Your task to perform on an android device: Is it going to rain this weekend? Image 0: 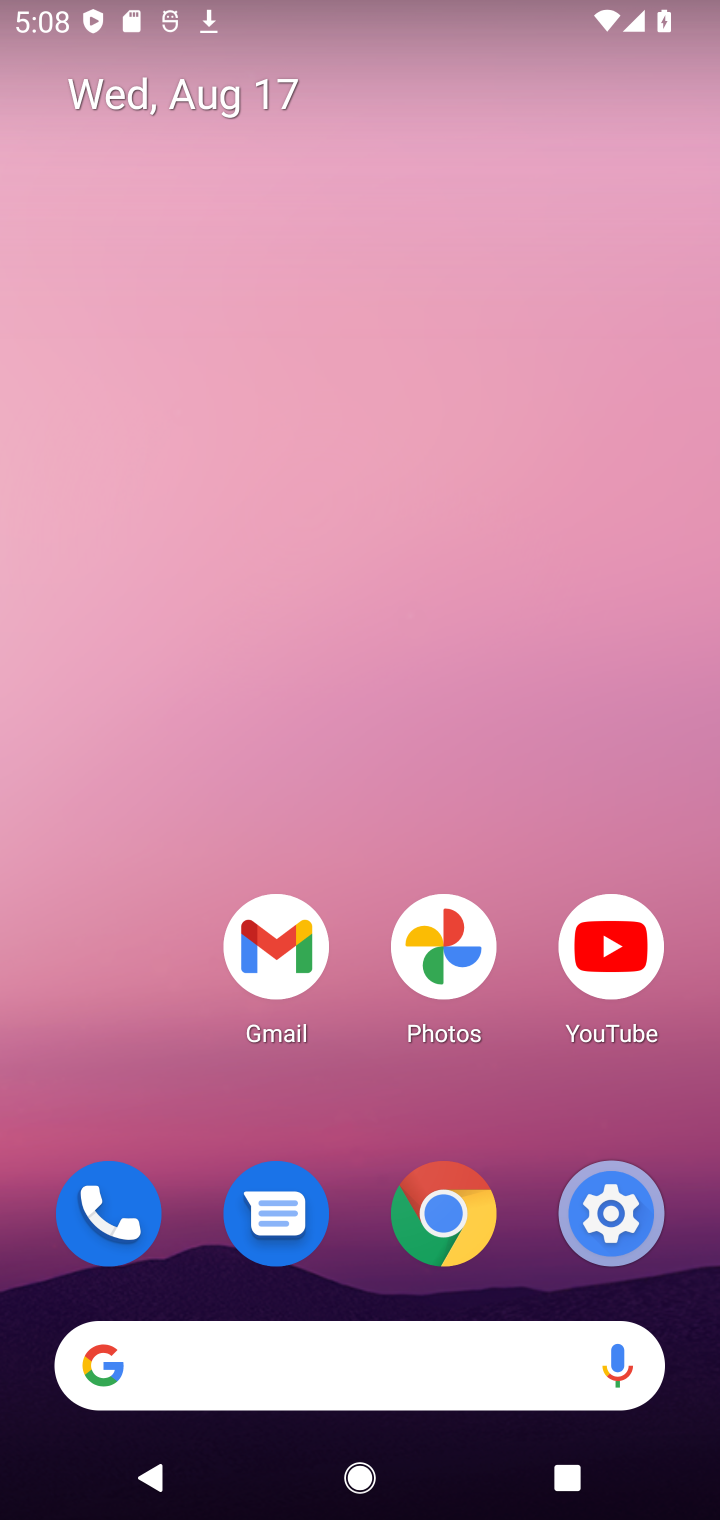
Step 0: click (392, 1357)
Your task to perform on an android device: Is it going to rain this weekend? Image 1: 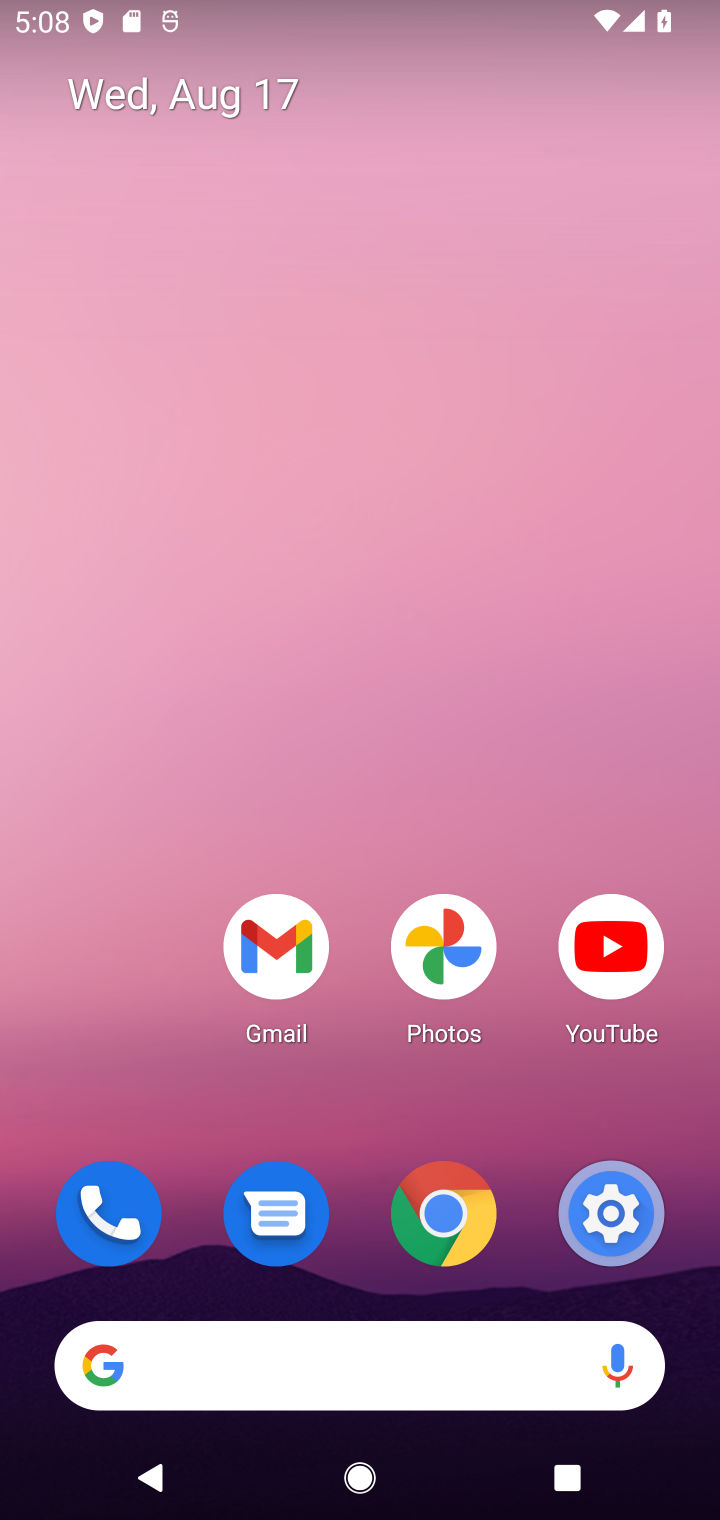
Step 1: click (382, 1358)
Your task to perform on an android device: Is it going to rain this weekend? Image 2: 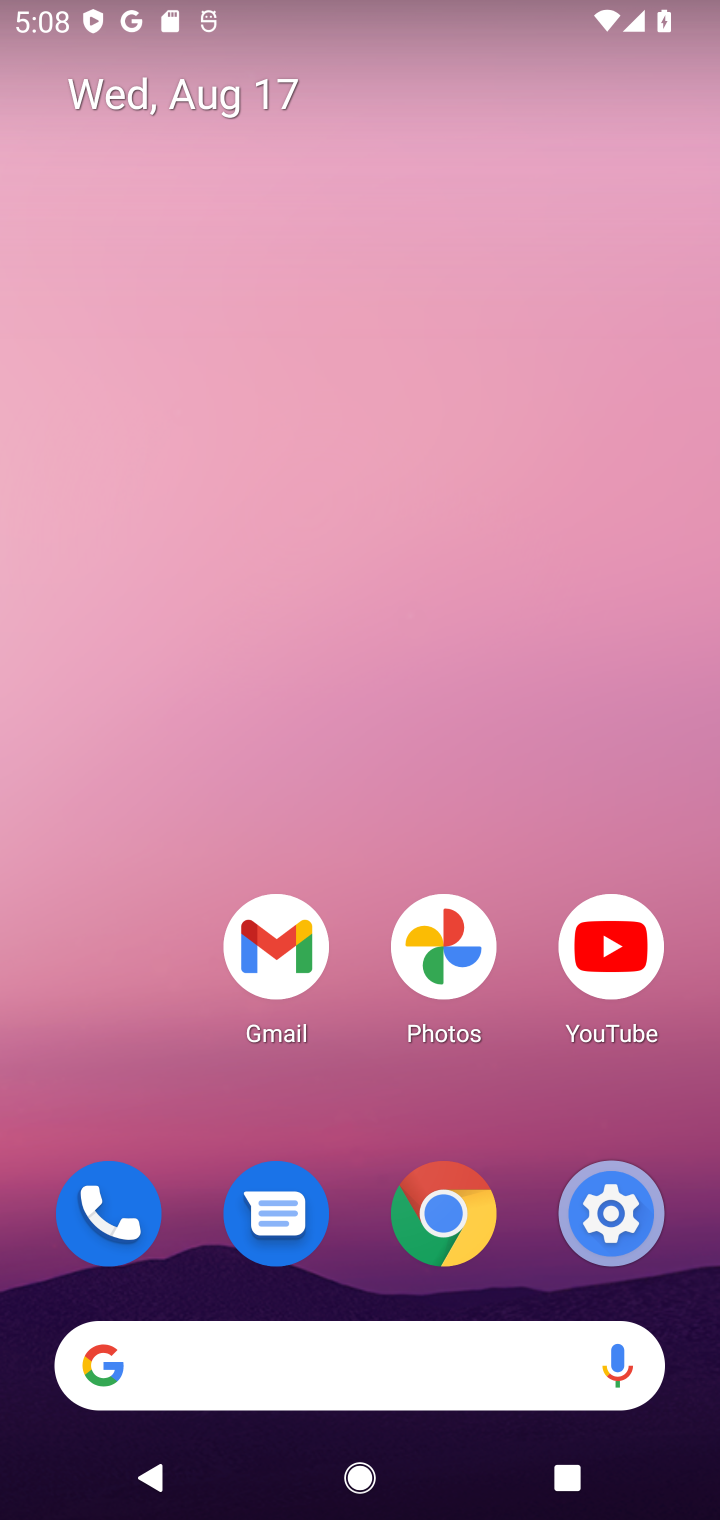
Step 2: click (288, 1376)
Your task to perform on an android device: Is it going to rain this weekend? Image 3: 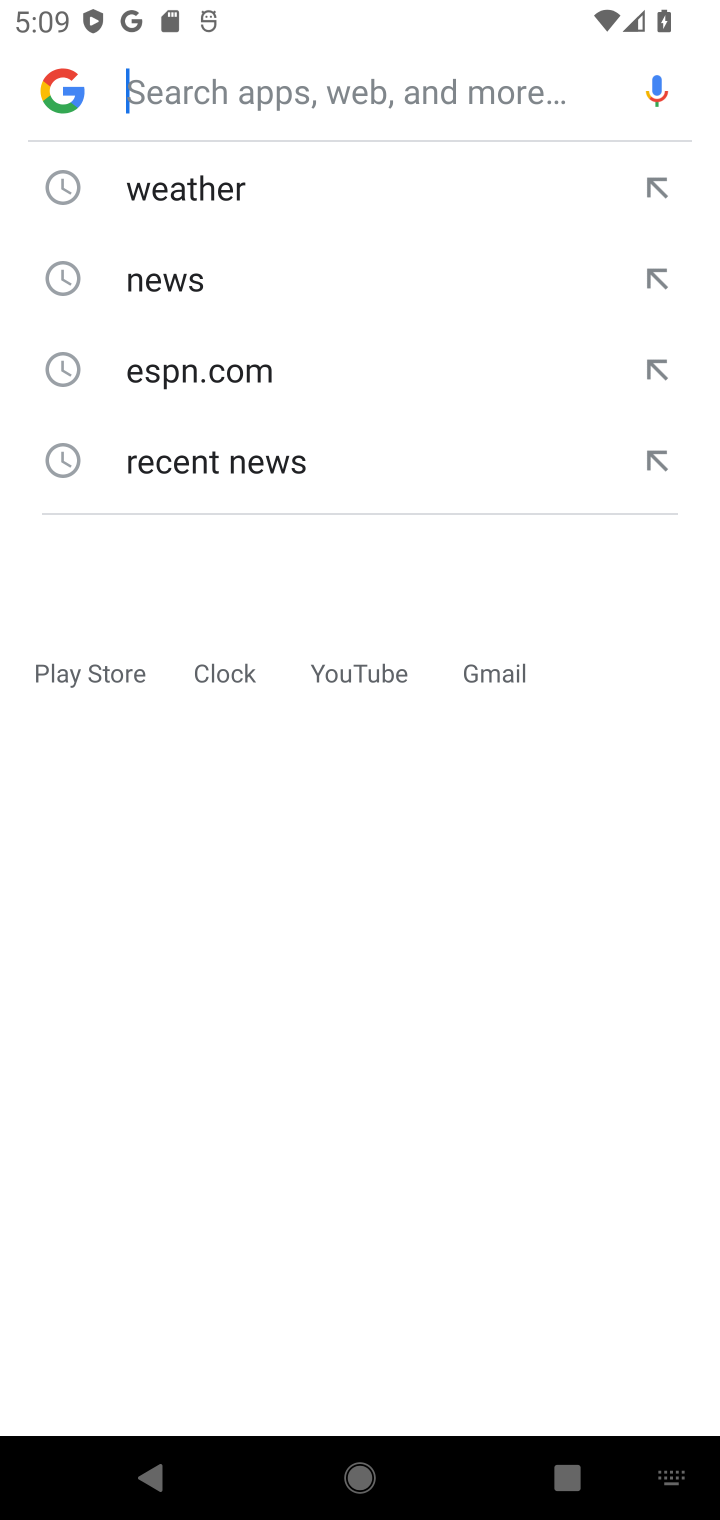
Step 3: click (274, 195)
Your task to perform on an android device: Is it going to rain this weekend? Image 4: 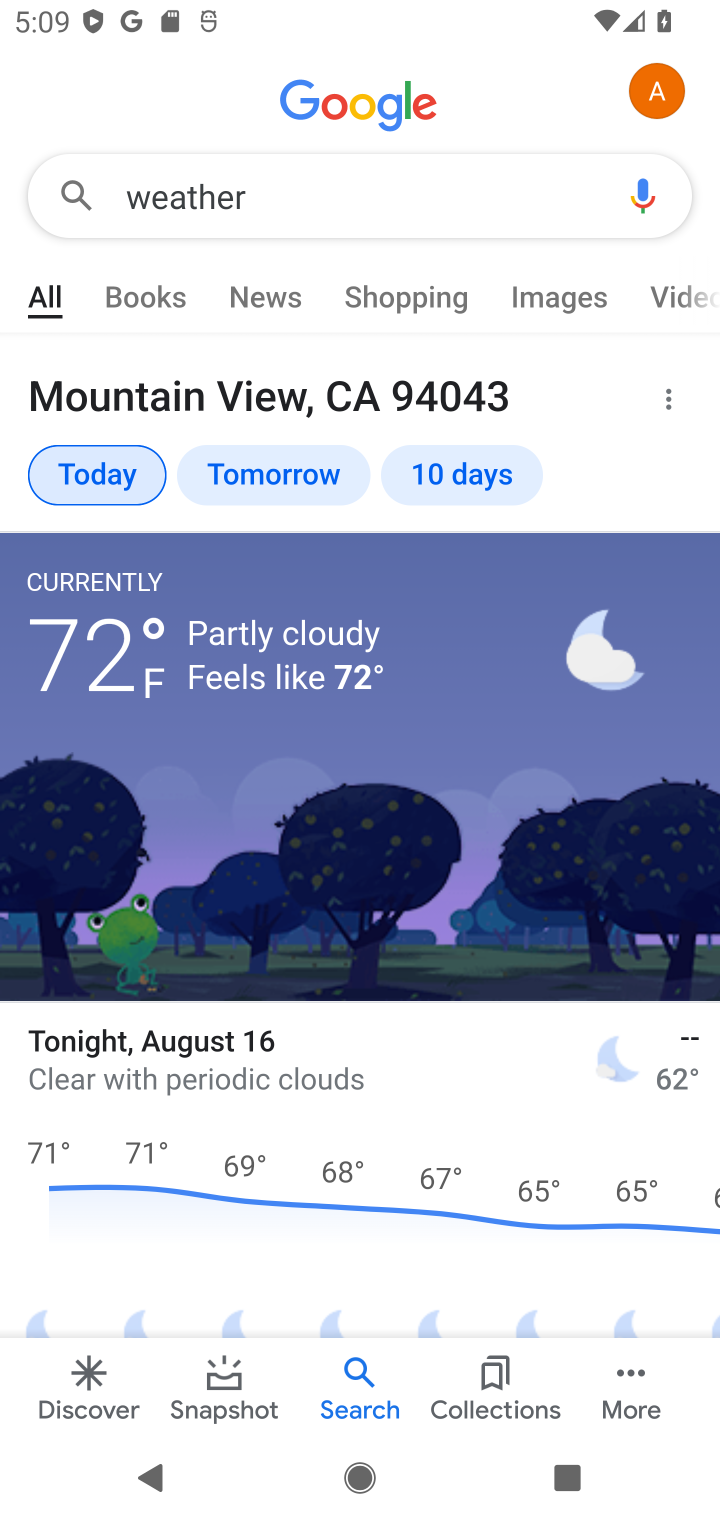
Step 4: drag from (434, 1029) to (406, 768)
Your task to perform on an android device: Is it going to rain this weekend? Image 5: 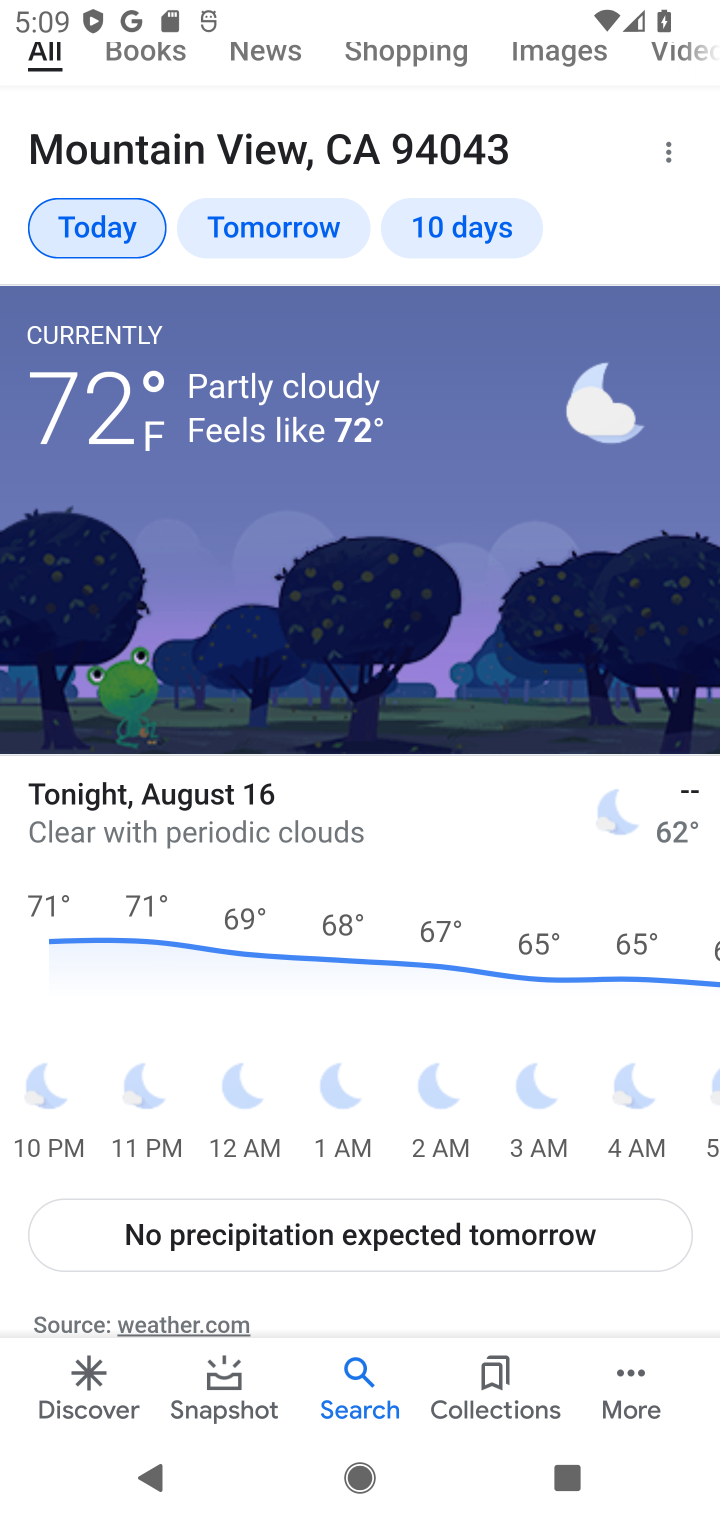
Step 5: click (437, 230)
Your task to perform on an android device: Is it going to rain this weekend? Image 6: 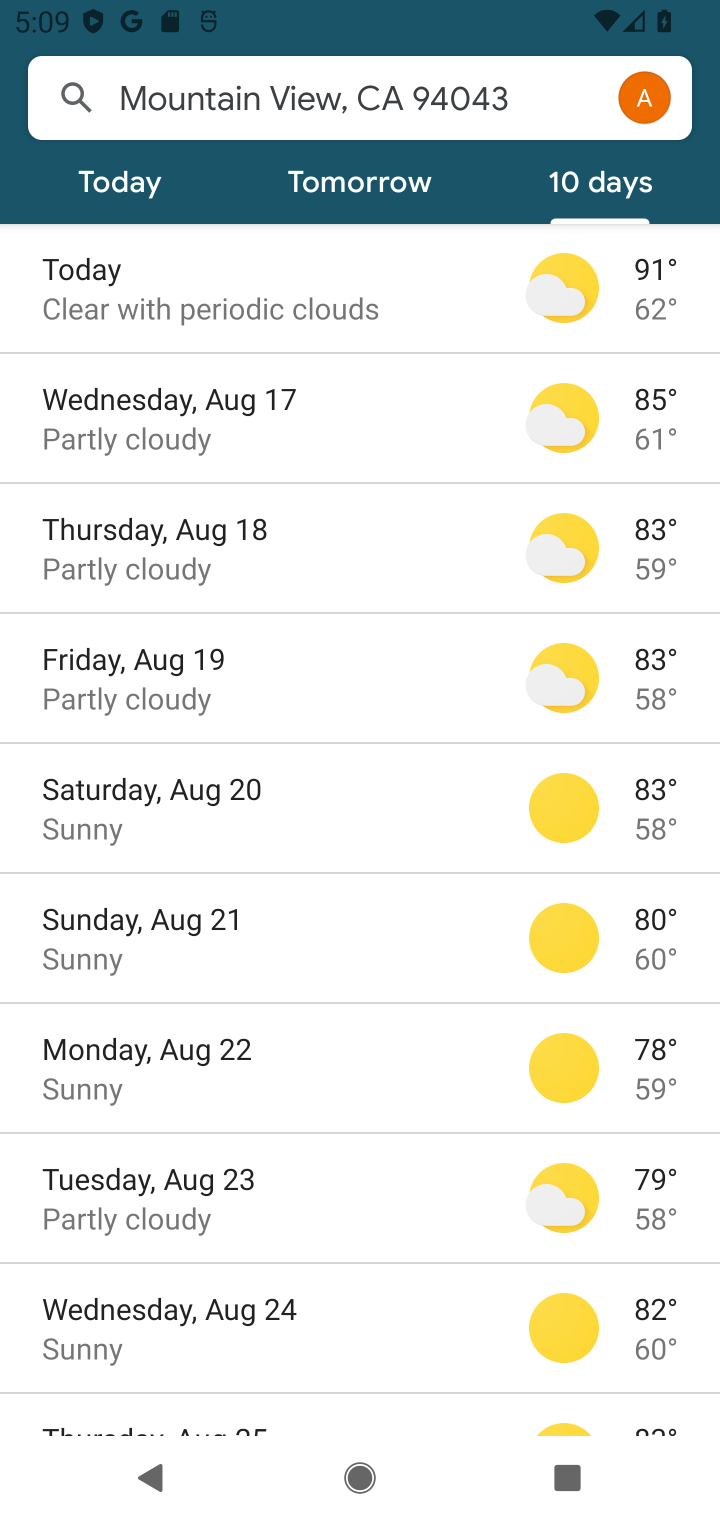
Step 6: click (195, 799)
Your task to perform on an android device: Is it going to rain this weekend? Image 7: 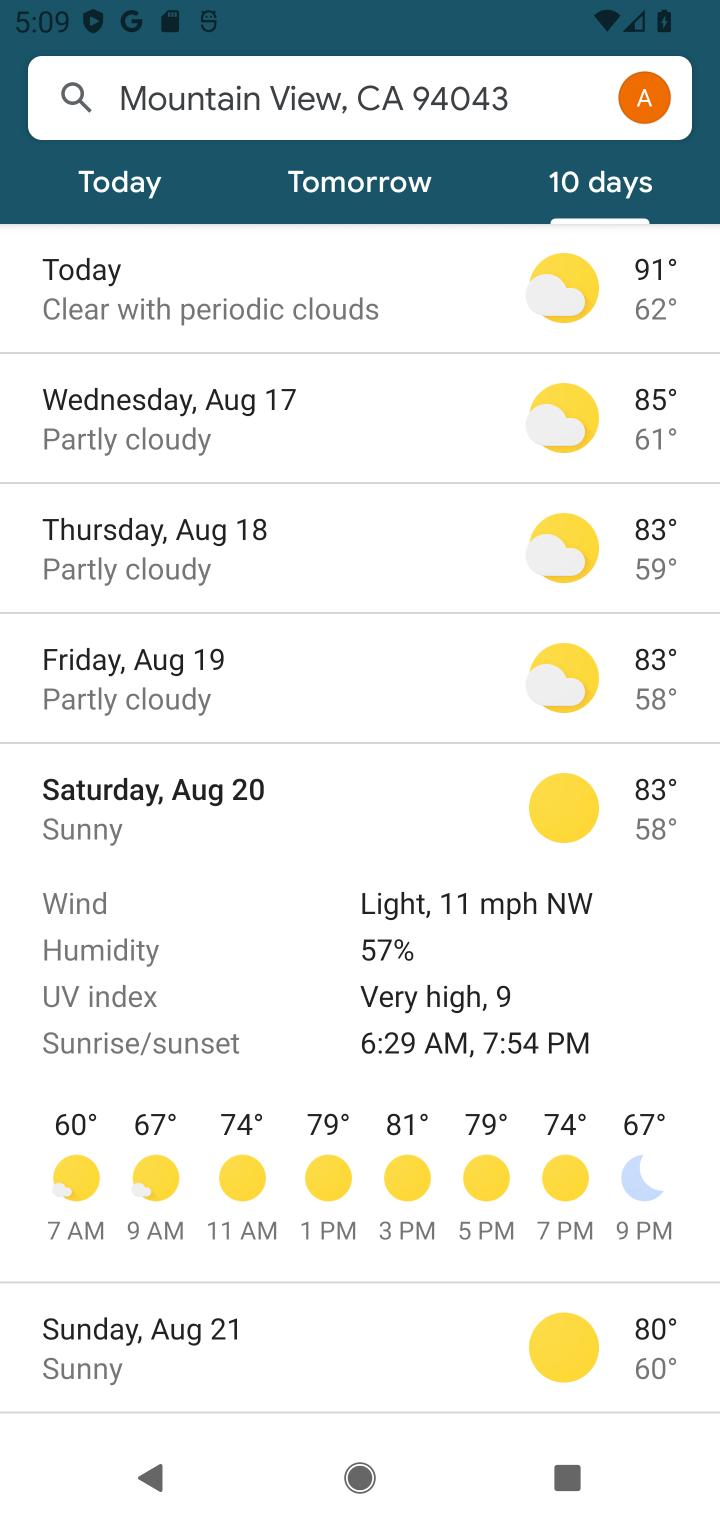
Step 7: task complete